Your task to perform on an android device: Search for sushi restaurants on Maps Image 0: 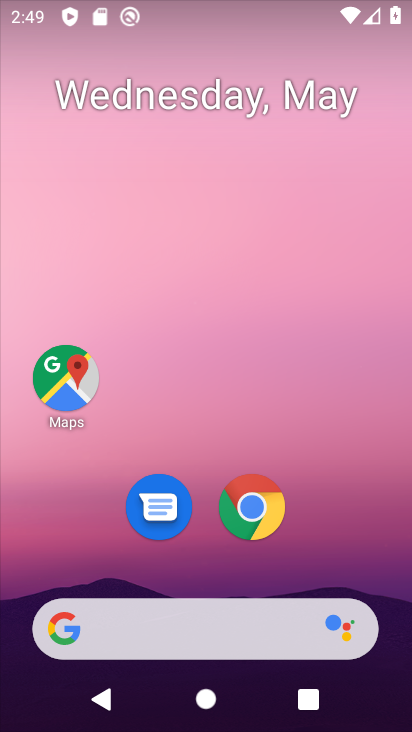
Step 0: drag from (201, 569) to (235, 147)
Your task to perform on an android device: Search for sushi restaurants on Maps Image 1: 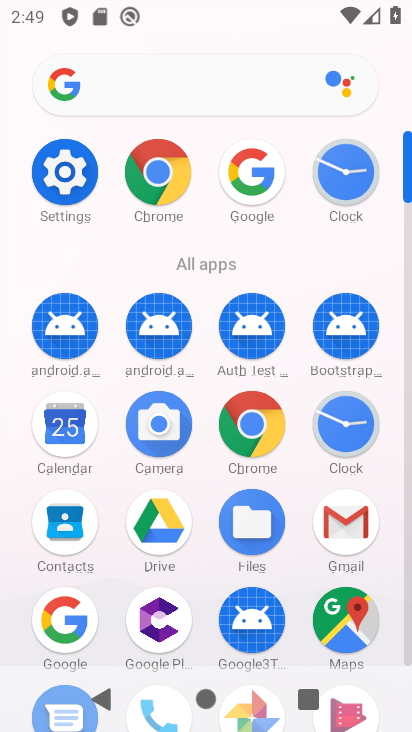
Step 1: drag from (217, 605) to (248, 315)
Your task to perform on an android device: Search for sushi restaurants on Maps Image 2: 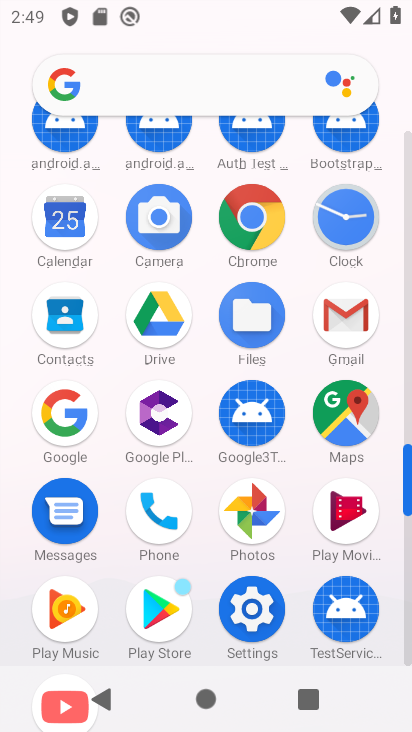
Step 2: click (349, 406)
Your task to perform on an android device: Search for sushi restaurants on Maps Image 3: 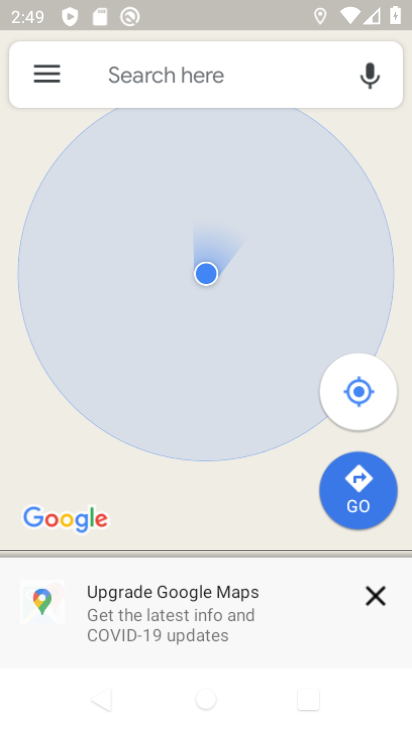
Step 3: click (208, 76)
Your task to perform on an android device: Search for sushi restaurants on Maps Image 4: 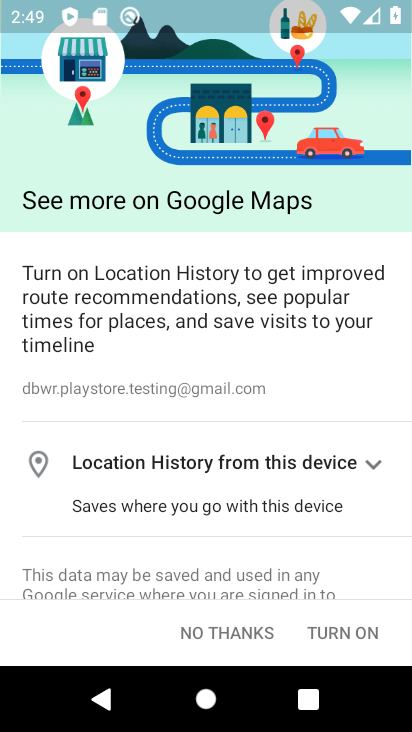
Step 4: click (229, 637)
Your task to perform on an android device: Search for sushi restaurants on Maps Image 5: 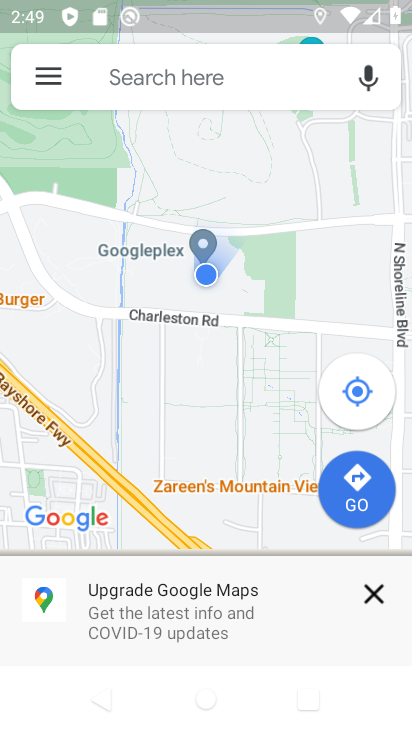
Step 5: click (212, 88)
Your task to perform on an android device: Search for sushi restaurants on Maps Image 6: 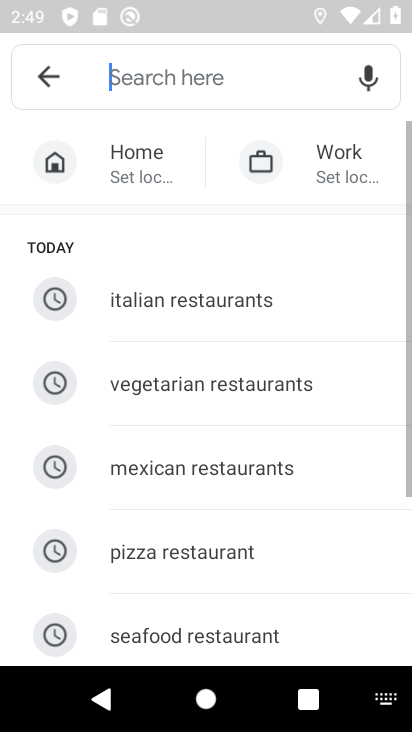
Step 6: drag from (219, 548) to (234, 284)
Your task to perform on an android device: Search for sushi restaurants on Maps Image 7: 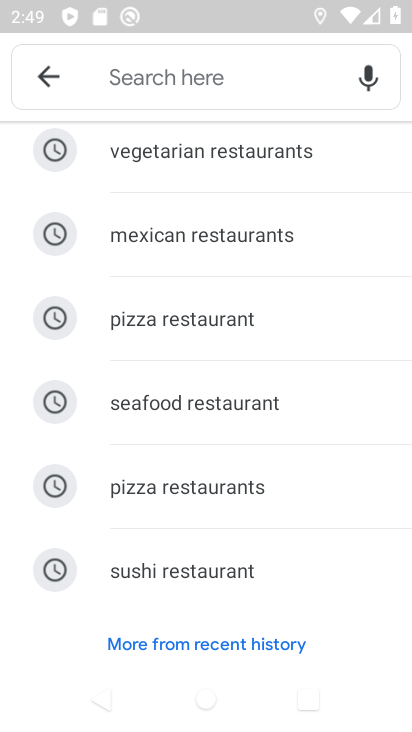
Step 7: click (164, 563)
Your task to perform on an android device: Search for sushi restaurants on Maps Image 8: 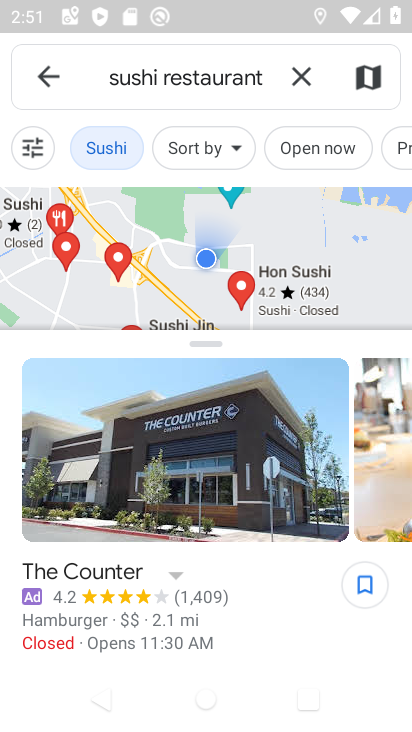
Step 8: task complete